Your task to perform on an android device: Open Amazon Image 0: 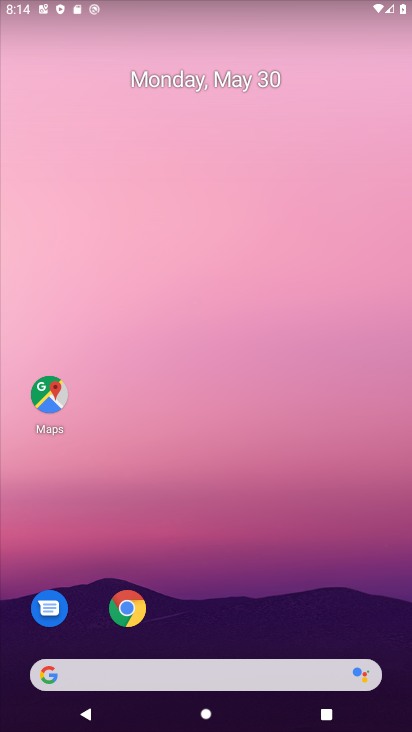
Step 0: click (130, 606)
Your task to perform on an android device: Open Amazon Image 1: 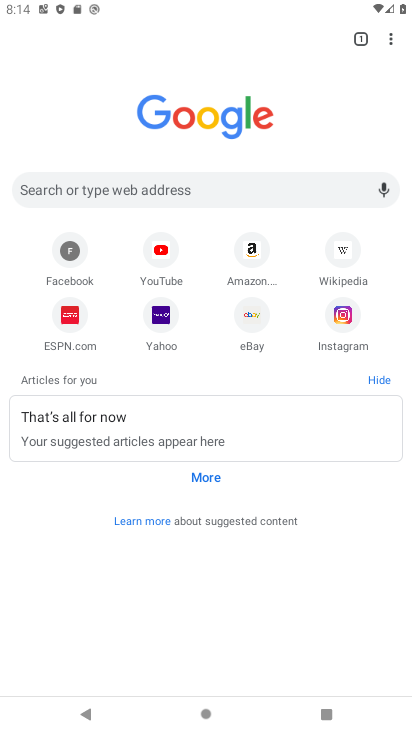
Step 1: click (56, 191)
Your task to perform on an android device: Open Amazon Image 2: 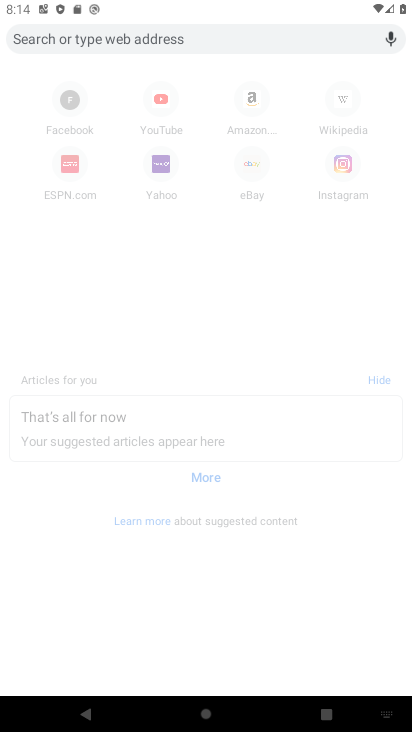
Step 2: type "Amazon"
Your task to perform on an android device: Open Amazon Image 3: 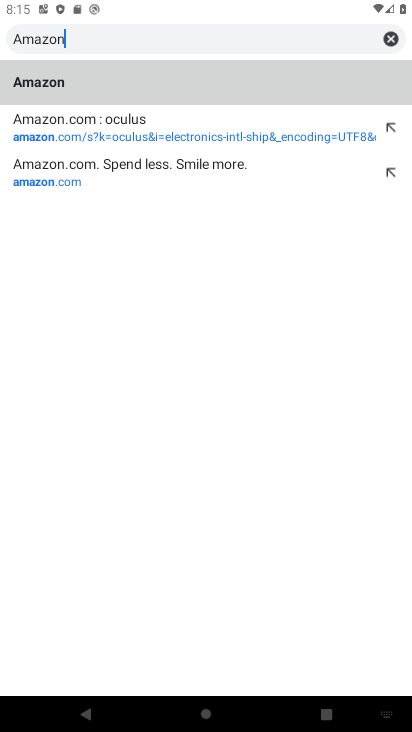
Step 3: click (56, 80)
Your task to perform on an android device: Open Amazon Image 4: 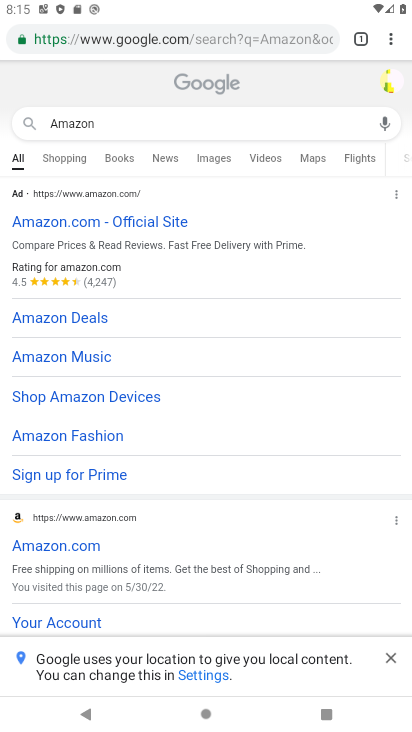
Step 4: task complete